Your task to perform on an android device: Open the Play Movies app and select the watchlist tab. Image 0: 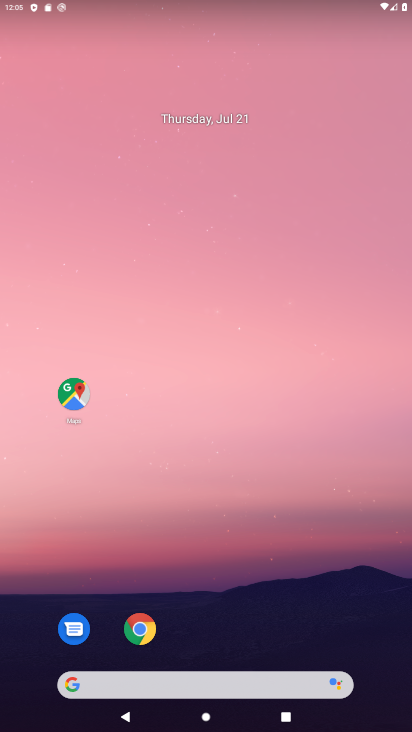
Step 0: drag from (231, 682) to (257, 61)
Your task to perform on an android device: Open the Play Movies app and select the watchlist tab. Image 1: 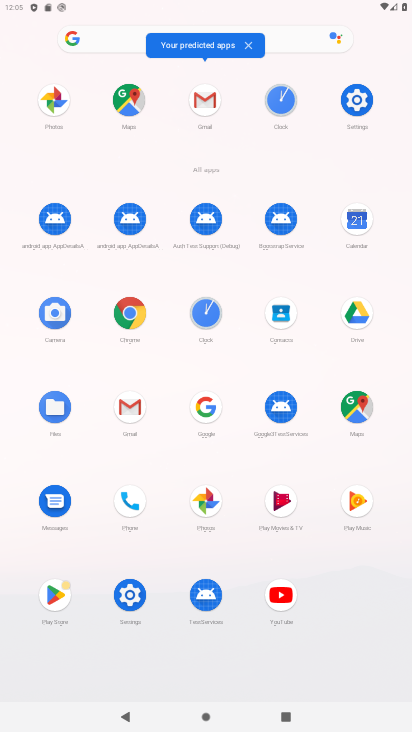
Step 1: click (281, 500)
Your task to perform on an android device: Open the Play Movies app and select the watchlist tab. Image 2: 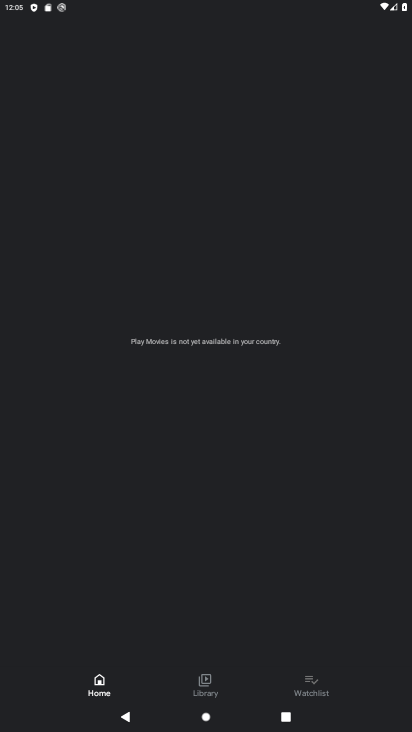
Step 2: click (315, 689)
Your task to perform on an android device: Open the Play Movies app and select the watchlist tab. Image 3: 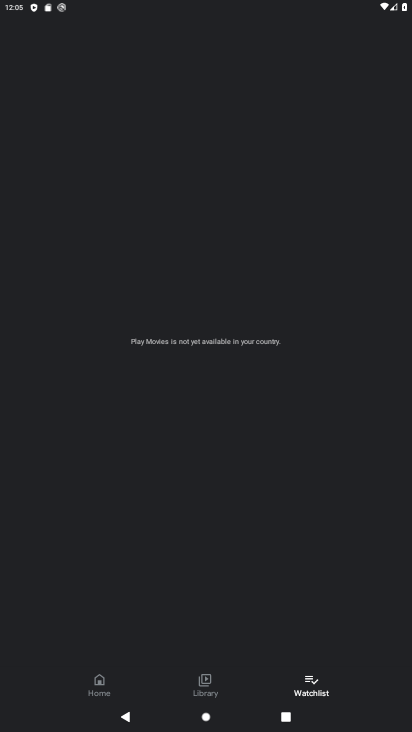
Step 3: task complete